Your task to perform on an android device: check storage Image 0: 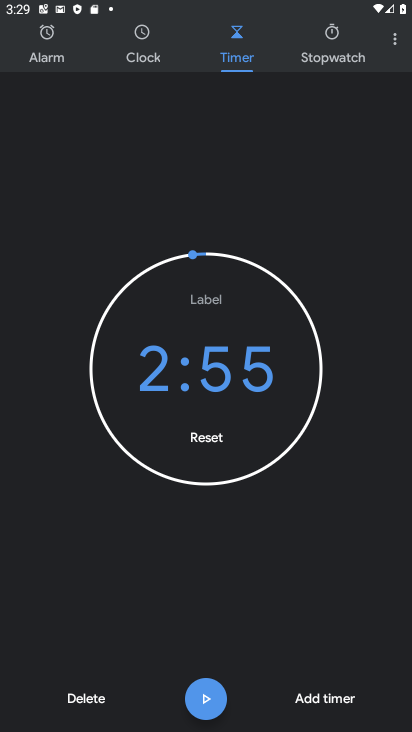
Step 0: press home button
Your task to perform on an android device: check storage Image 1: 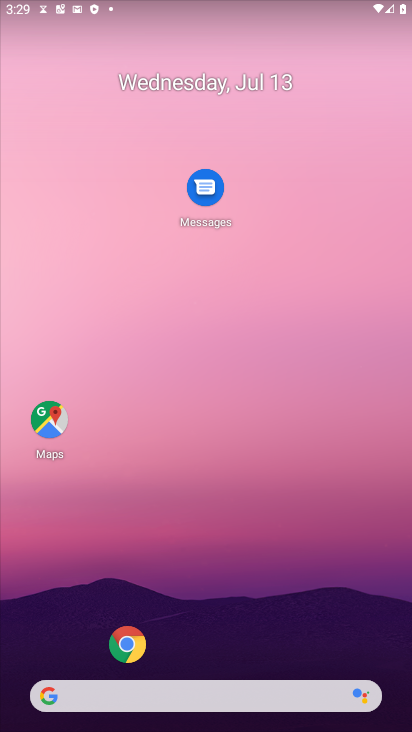
Step 1: drag from (11, 675) to (193, 229)
Your task to perform on an android device: check storage Image 2: 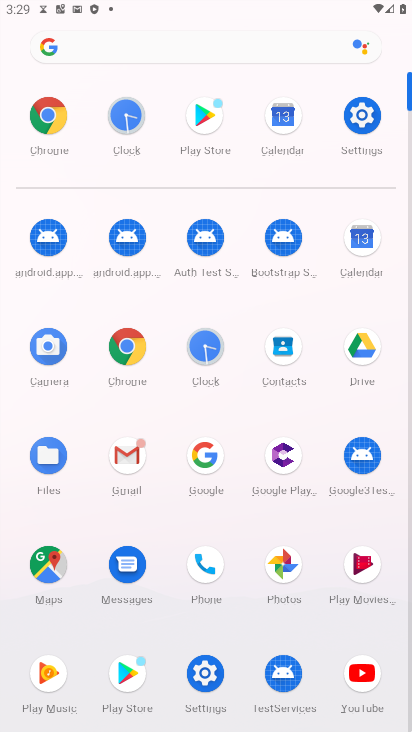
Step 2: click (201, 680)
Your task to perform on an android device: check storage Image 3: 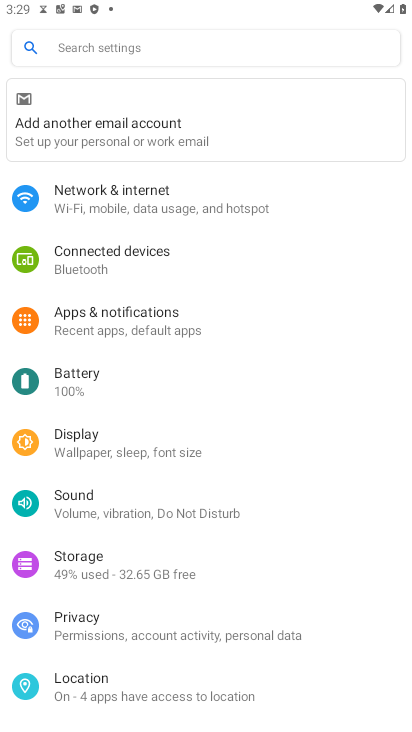
Step 3: click (75, 554)
Your task to perform on an android device: check storage Image 4: 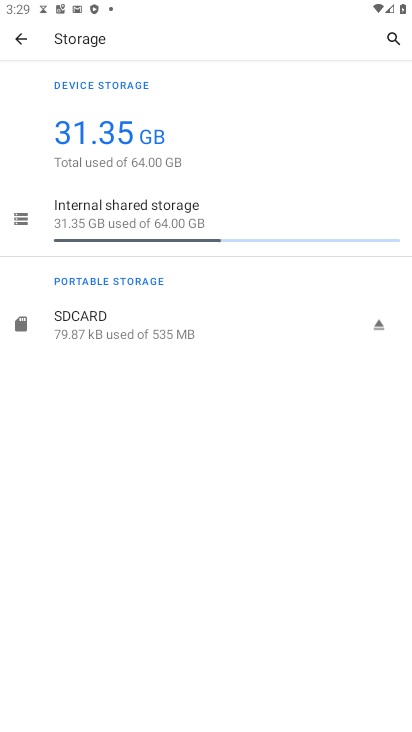
Step 4: task complete